Your task to perform on an android device: toggle notification dots Image 0: 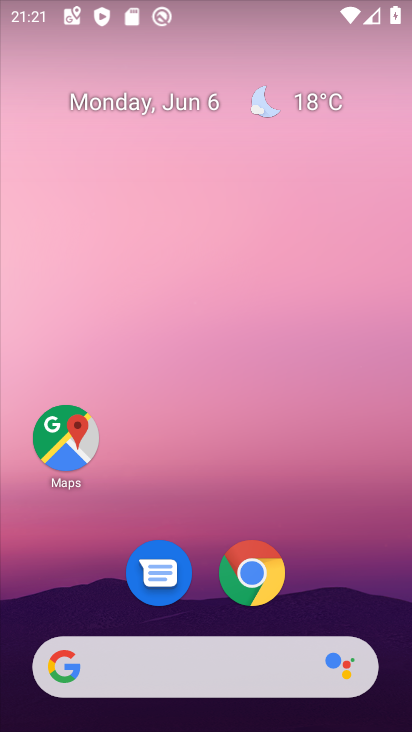
Step 0: drag from (323, 582) to (261, 223)
Your task to perform on an android device: toggle notification dots Image 1: 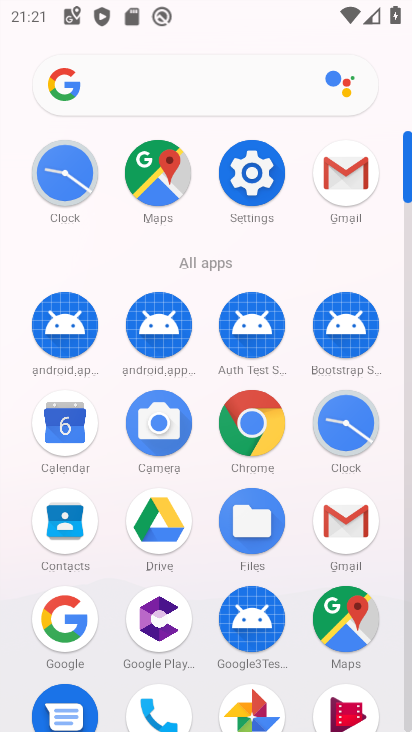
Step 1: click (251, 152)
Your task to perform on an android device: toggle notification dots Image 2: 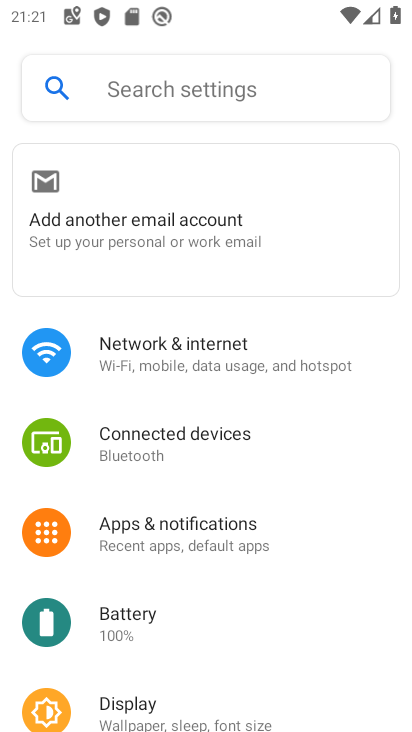
Step 2: click (258, 561)
Your task to perform on an android device: toggle notification dots Image 3: 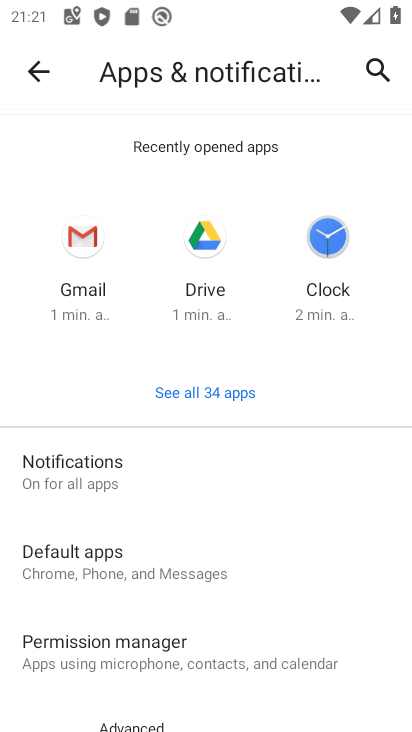
Step 3: click (182, 475)
Your task to perform on an android device: toggle notification dots Image 4: 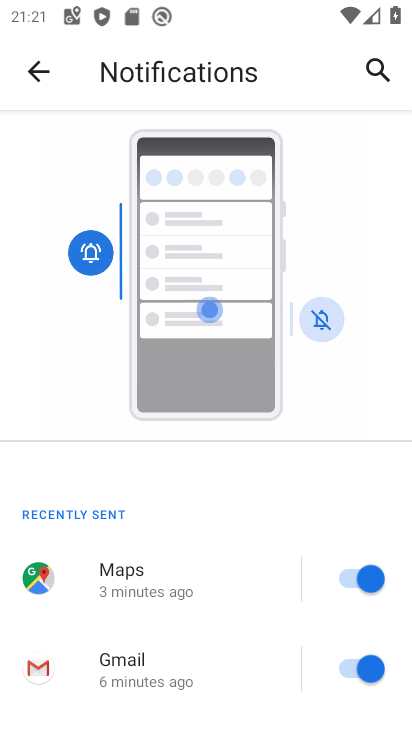
Step 4: drag from (240, 673) to (212, 160)
Your task to perform on an android device: toggle notification dots Image 5: 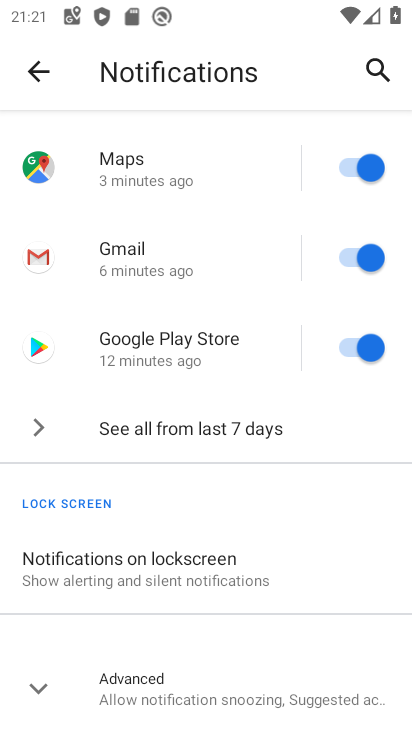
Step 5: drag from (248, 604) to (232, 426)
Your task to perform on an android device: toggle notification dots Image 6: 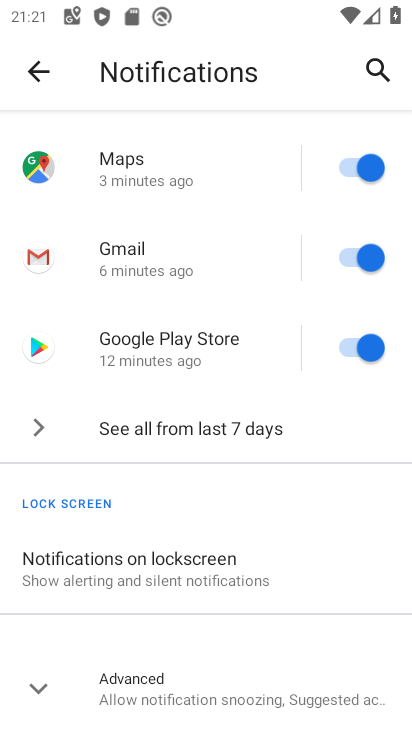
Step 6: click (268, 696)
Your task to perform on an android device: toggle notification dots Image 7: 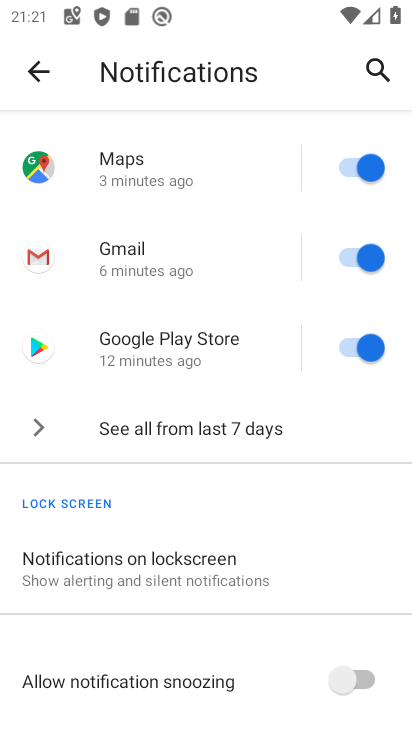
Step 7: drag from (268, 696) to (231, 408)
Your task to perform on an android device: toggle notification dots Image 8: 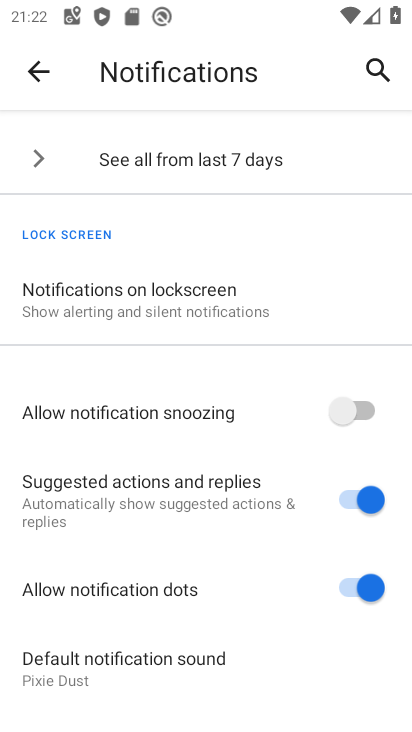
Step 8: click (353, 598)
Your task to perform on an android device: toggle notification dots Image 9: 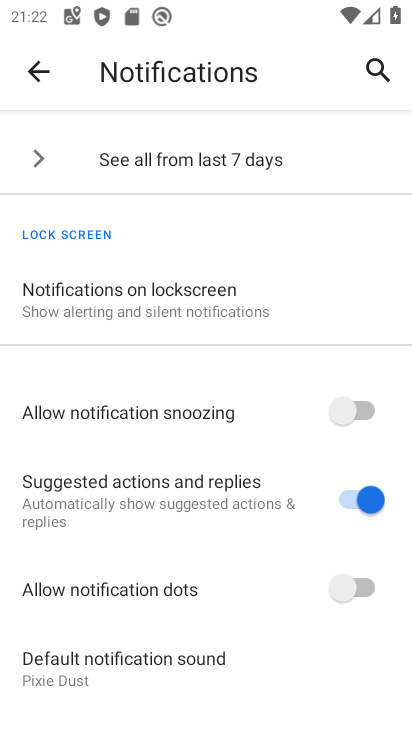
Step 9: task complete